Your task to perform on an android device: delete a single message in the gmail app Image 0: 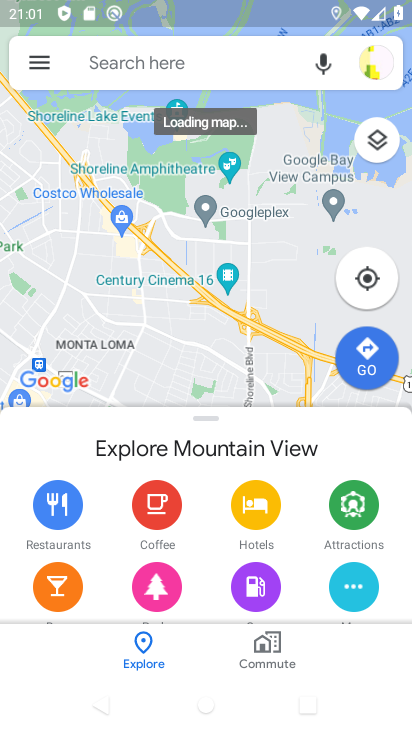
Step 0: press home button
Your task to perform on an android device: delete a single message in the gmail app Image 1: 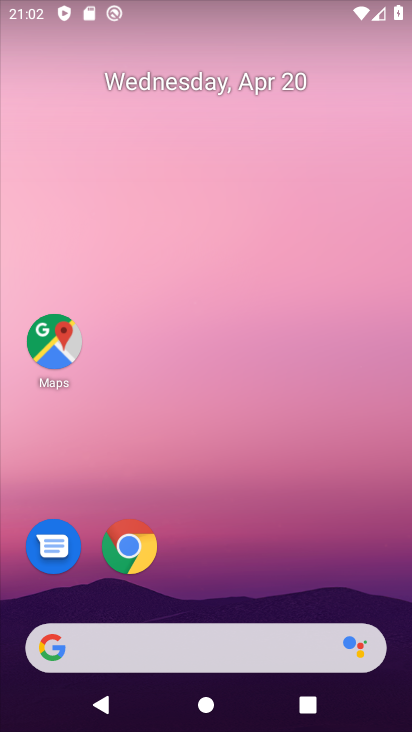
Step 1: drag from (243, 576) to (223, 112)
Your task to perform on an android device: delete a single message in the gmail app Image 2: 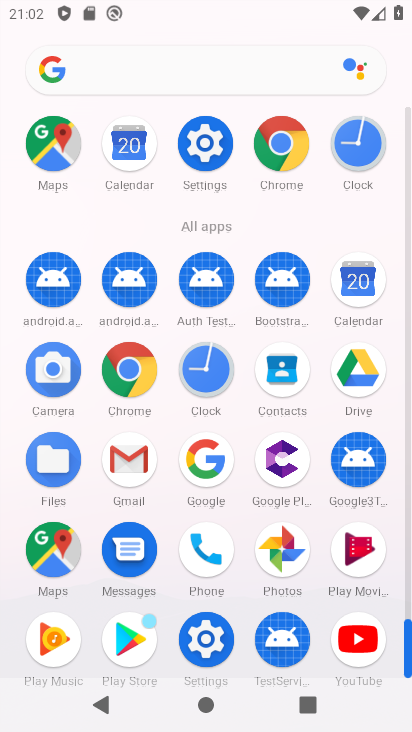
Step 2: click (137, 464)
Your task to perform on an android device: delete a single message in the gmail app Image 3: 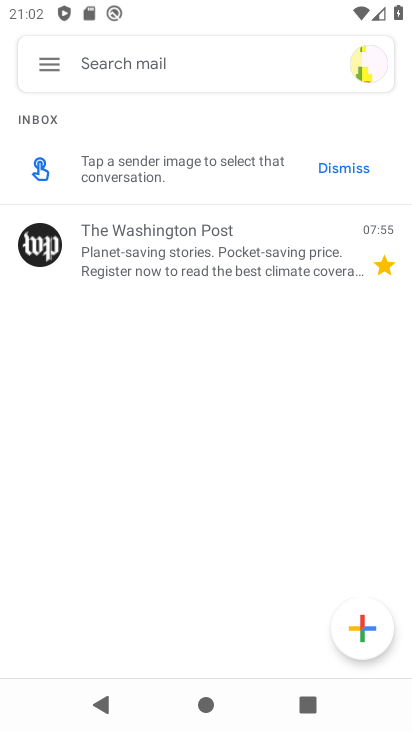
Step 3: click (149, 233)
Your task to perform on an android device: delete a single message in the gmail app Image 4: 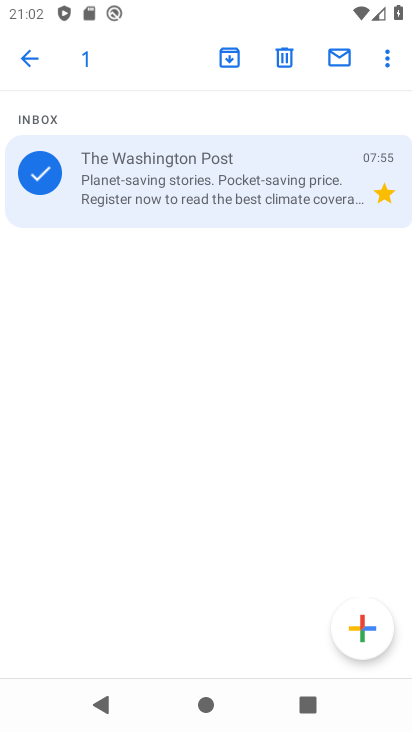
Step 4: click (288, 76)
Your task to perform on an android device: delete a single message in the gmail app Image 5: 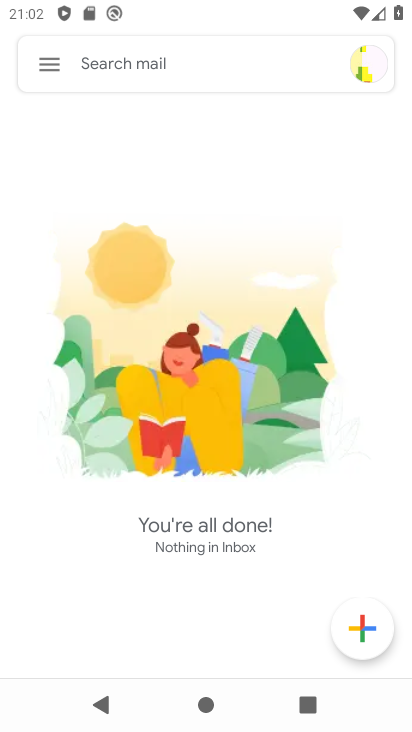
Step 5: task complete